Your task to perform on an android device: Go to accessibility settings Image 0: 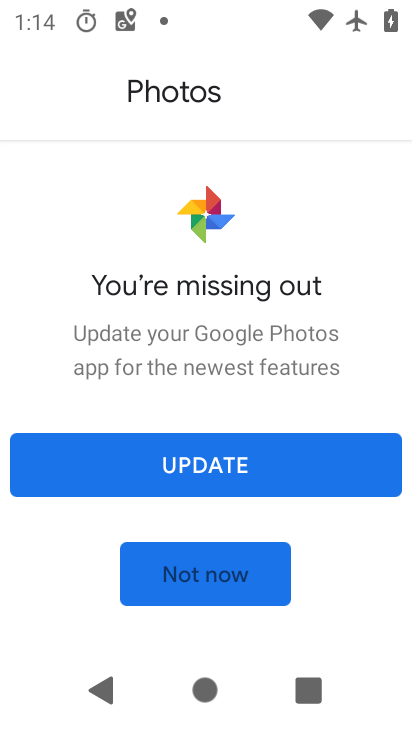
Step 0: press home button
Your task to perform on an android device: Go to accessibility settings Image 1: 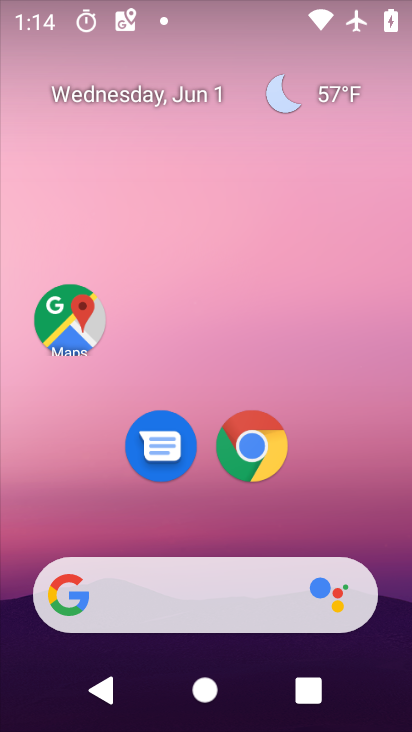
Step 1: drag from (207, 525) to (241, 221)
Your task to perform on an android device: Go to accessibility settings Image 2: 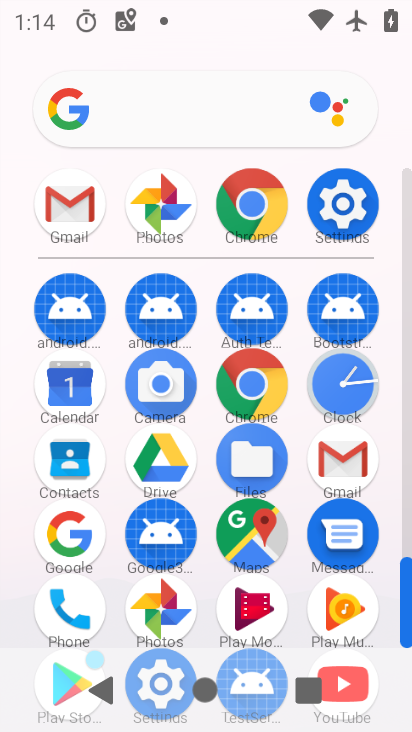
Step 2: drag from (195, 268) to (196, 106)
Your task to perform on an android device: Go to accessibility settings Image 3: 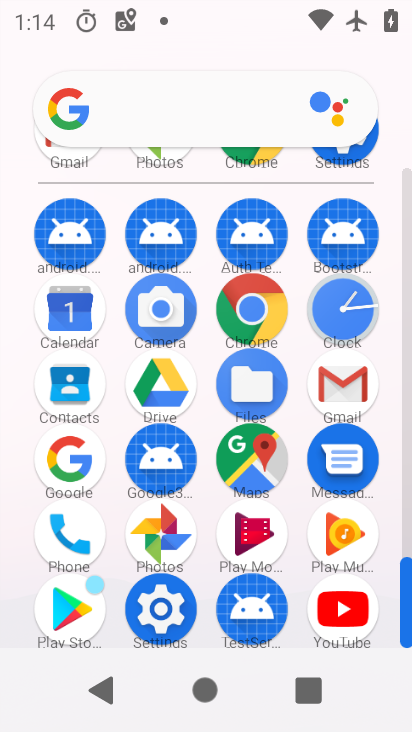
Step 3: click (161, 624)
Your task to perform on an android device: Go to accessibility settings Image 4: 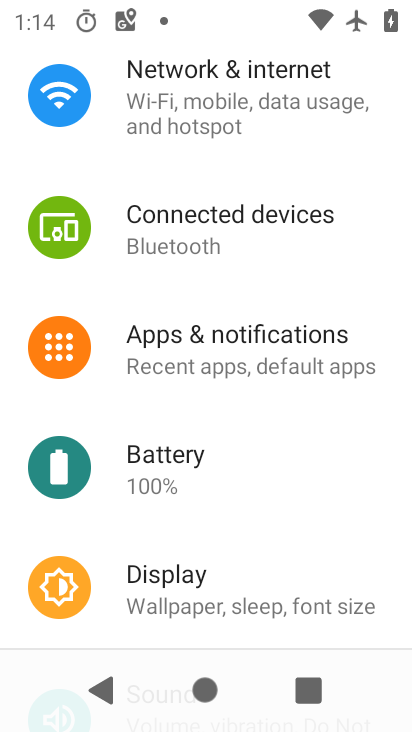
Step 4: drag from (209, 514) to (233, 299)
Your task to perform on an android device: Go to accessibility settings Image 5: 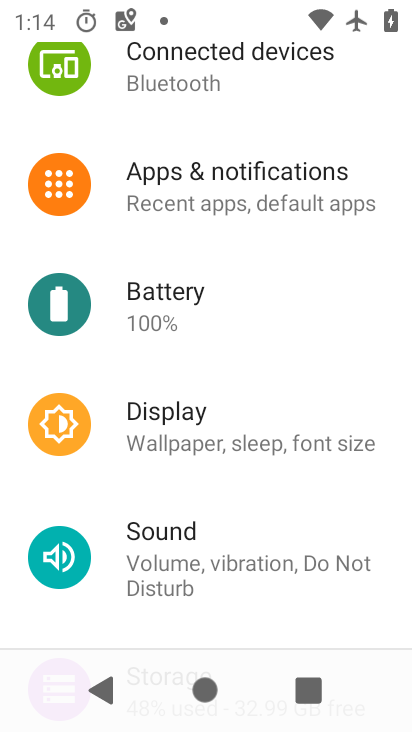
Step 5: drag from (239, 542) to (274, 263)
Your task to perform on an android device: Go to accessibility settings Image 6: 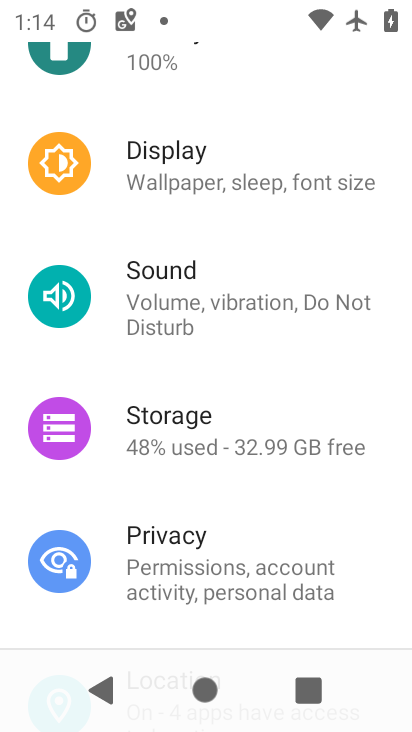
Step 6: drag from (214, 560) to (248, 221)
Your task to perform on an android device: Go to accessibility settings Image 7: 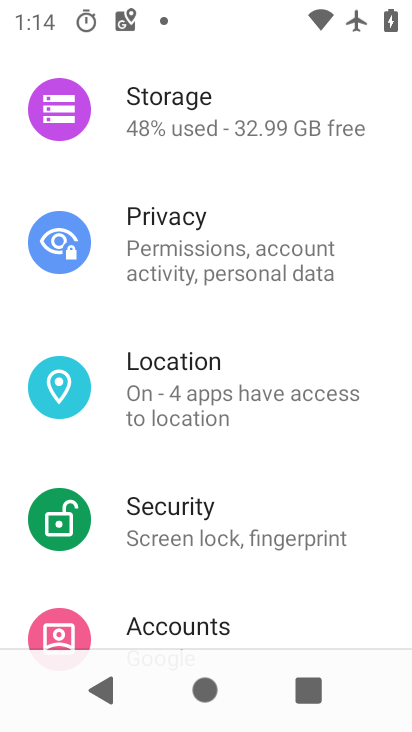
Step 7: drag from (228, 549) to (227, 169)
Your task to perform on an android device: Go to accessibility settings Image 8: 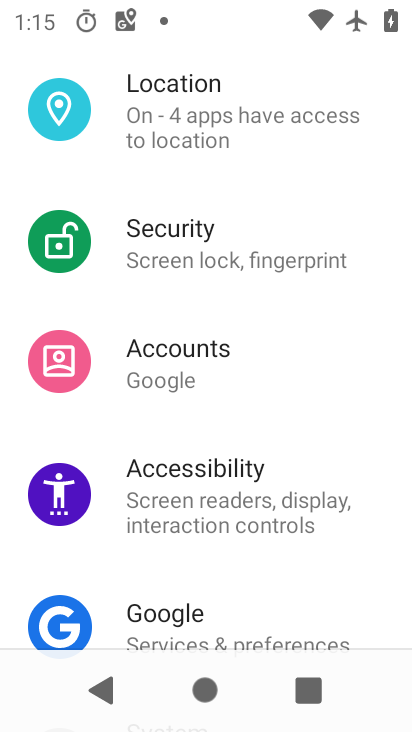
Step 8: click (217, 500)
Your task to perform on an android device: Go to accessibility settings Image 9: 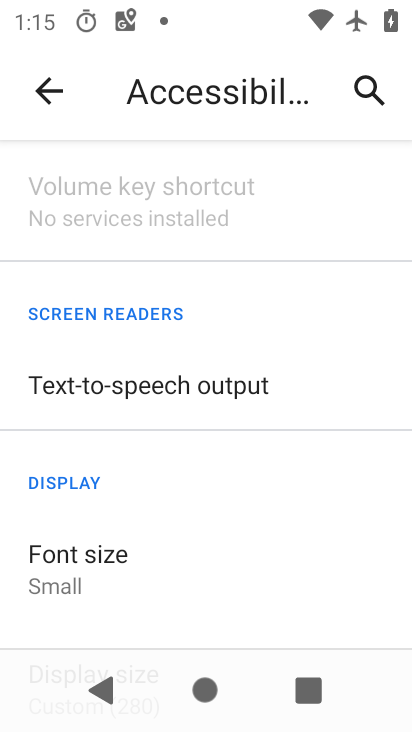
Step 9: task complete